Your task to perform on an android device: open the mobile data screen to see how much data has been used Image 0: 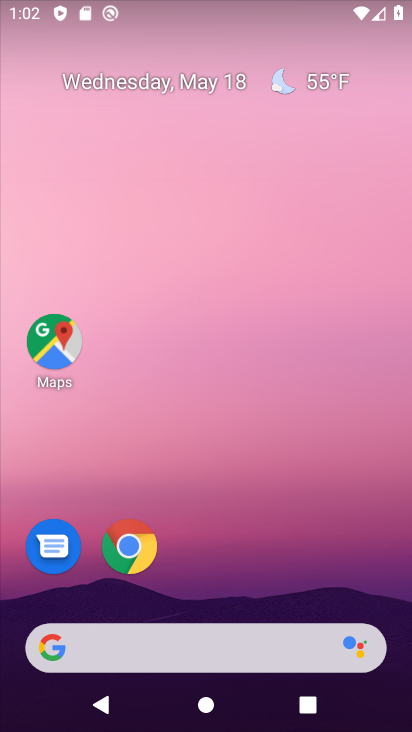
Step 0: drag from (310, 557) to (267, 189)
Your task to perform on an android device: open the mobile data screen to see how much data has been used Image 1: 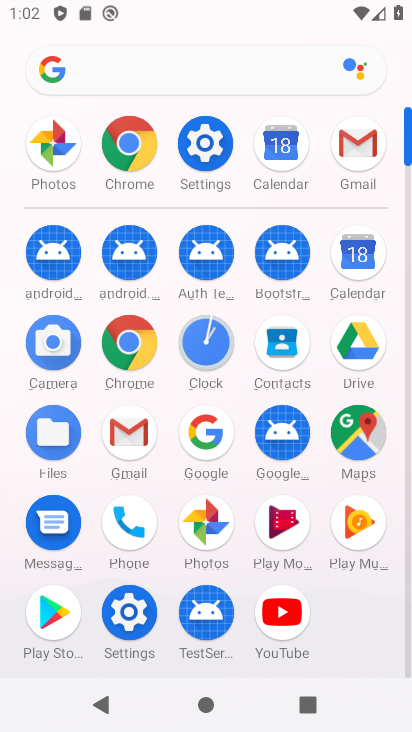
Step 1: click (188, 146)
Your task to perform on an android device: open the mobile data screen to see how much data has been used Image 2: 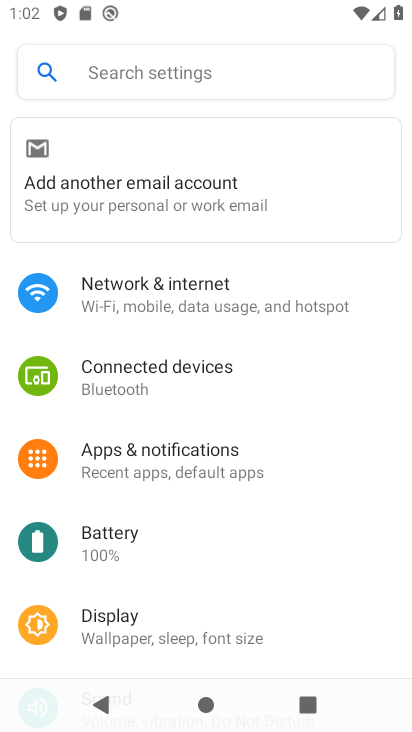
Step 2: click (192, 283)
Your task to perform on an android device: open the mobile data screen to see how much data has been used Image 3: 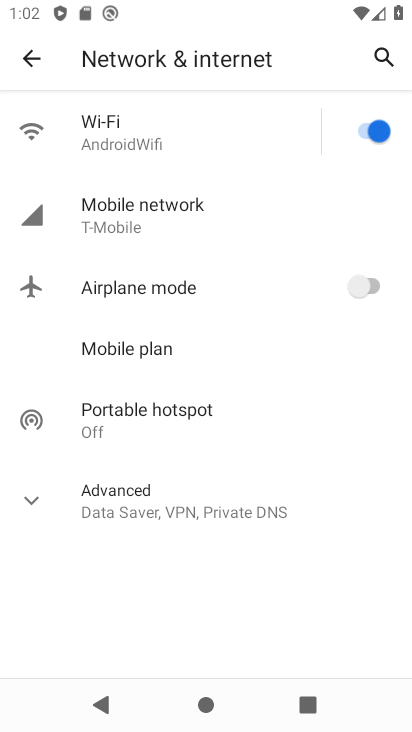
Step 3: click (163, 243)
Your task to perform on an android device: open the mobile data screen to see how much data has been used Image 4: 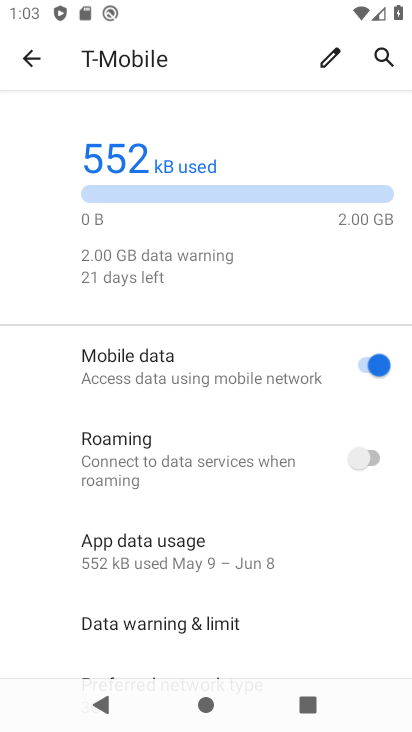
Step 4: task complete